Your task to perform on an android device: turn on sleep mode Image 0: 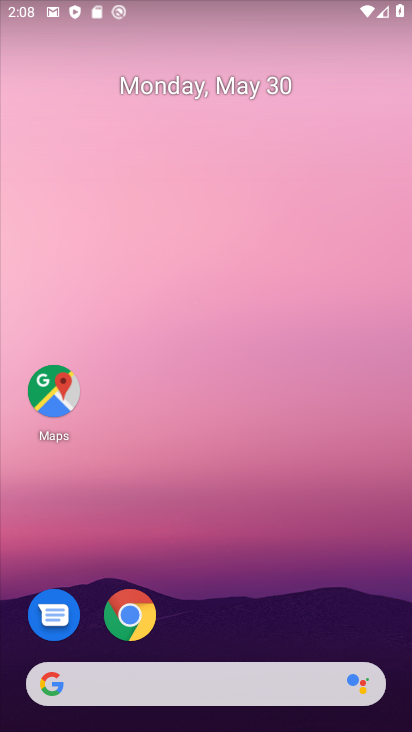
Step 0: drag from (219, 589) to (296, 30)
Your task to perform on an android device: turn on sleep mode Image 1: 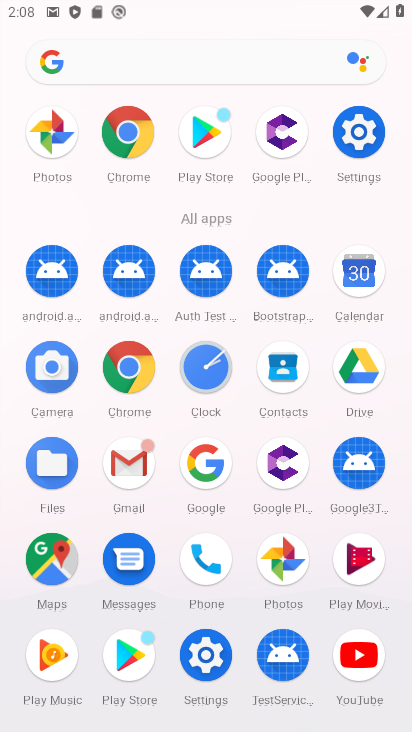
Step 1: click (362, 133)
Your task to perform on an android device: turn on sleep mode Image 2: 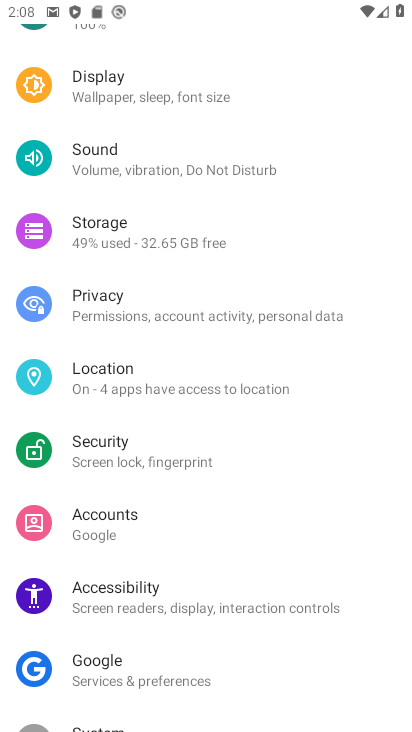
Step 2: click (129, 95)
Your task to perform on an android device: turn on sleep mode Image 3: 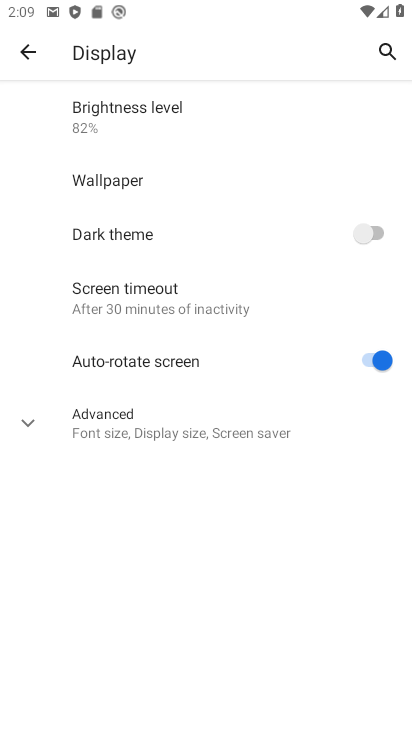
Step 3: task complete